Your task to perform on an android device: visit the assistant section in the google photos Image 0: 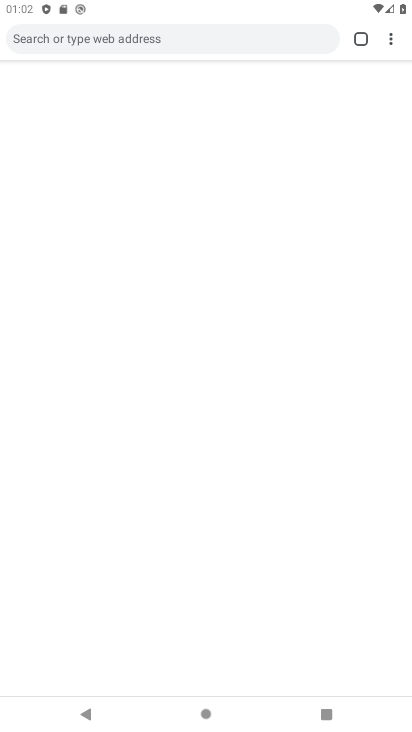
Step 0: drag from (199, 530) to (399, 373)
Your task to perform on an android device: visit the assistant section in the google photos Image 1: 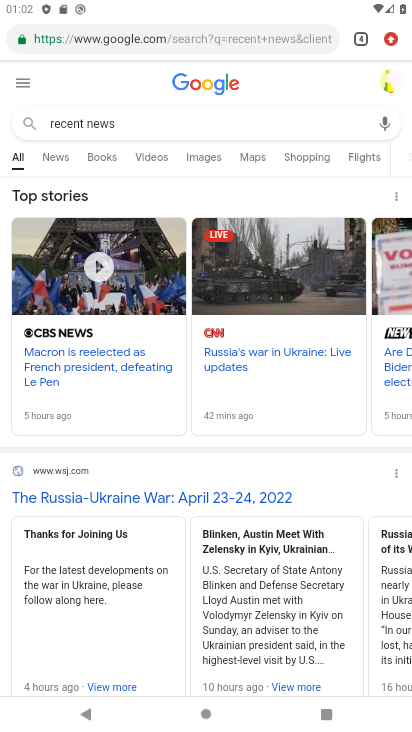
Step 1: press home button
Your task to perform on an android device: visit the assistant section in the google photos Image 2: 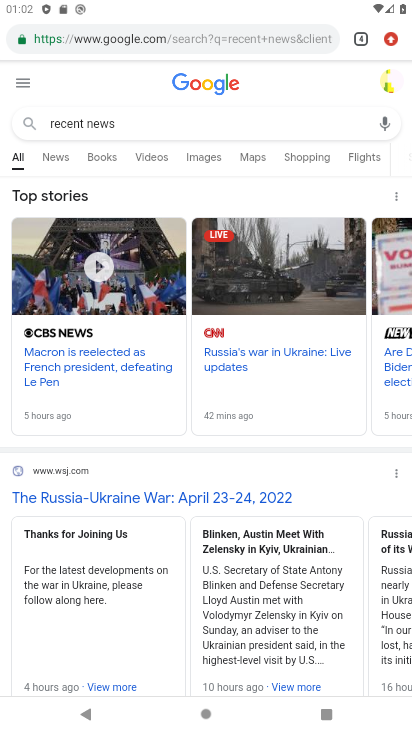
Step 2: click (399, 373)
Your task to perform on an android device: visit the assistant section in the google photos Image 3: 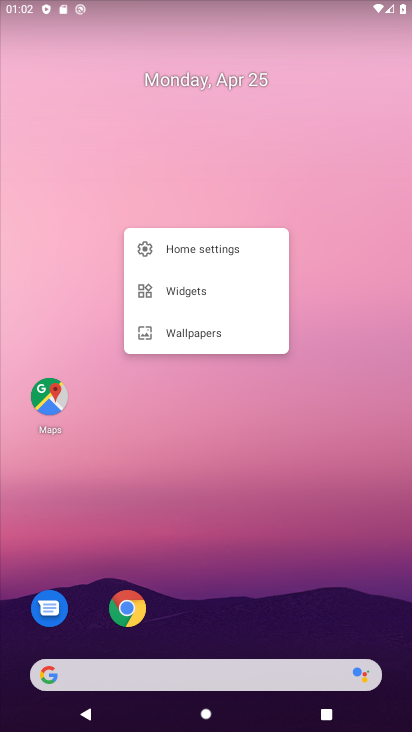
Step 3: drag from (208, 592) to (299, 135)
Your task to perform on an android device: visit the assistant section in the google photos Image 4: 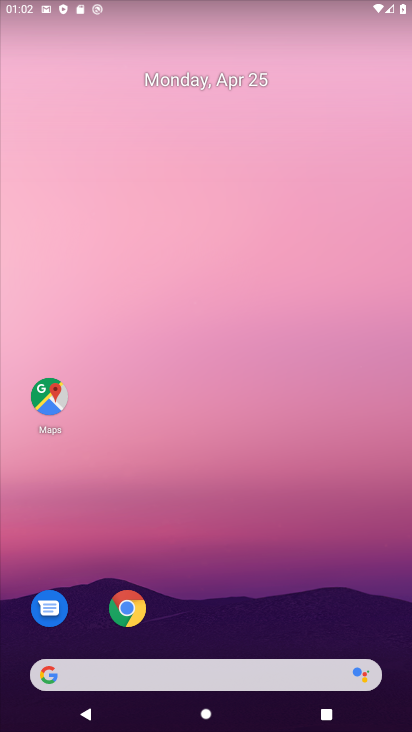
Step 4: drag from (225, 568) to (232, 191)
Your task to perform on an android device: visit the assistant section in the google photos Image 5: 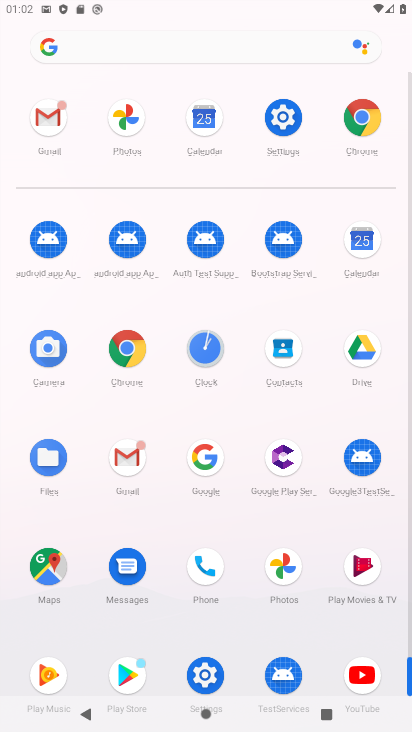
Step 5: click (295, 568)
Your task to perform on an android device: visit the assistant section in the google photos Image 6: 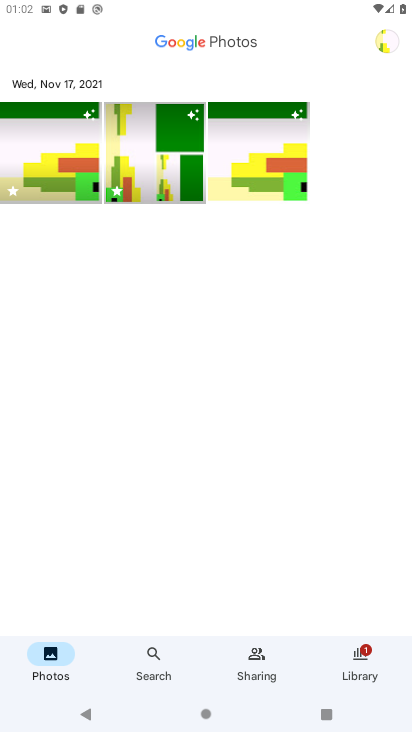
Step 6: click (263, 682)
Your task to perform on an android device: visit the assistant section in the google photos Image 7: 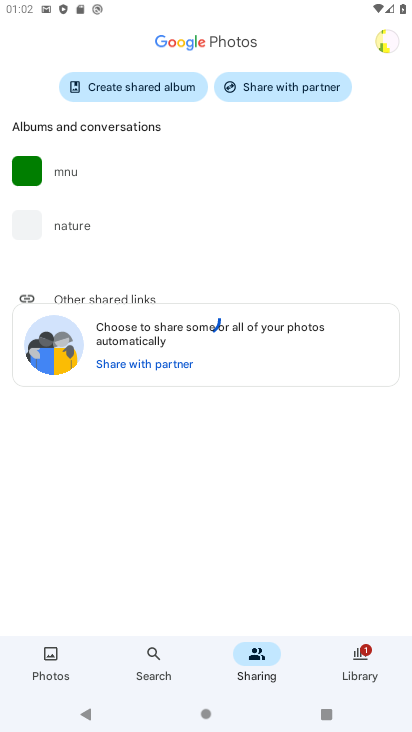
Step 7: click (331, 670)
Your task to perform on an android device: visit the assistant section in the google photos Image 8: 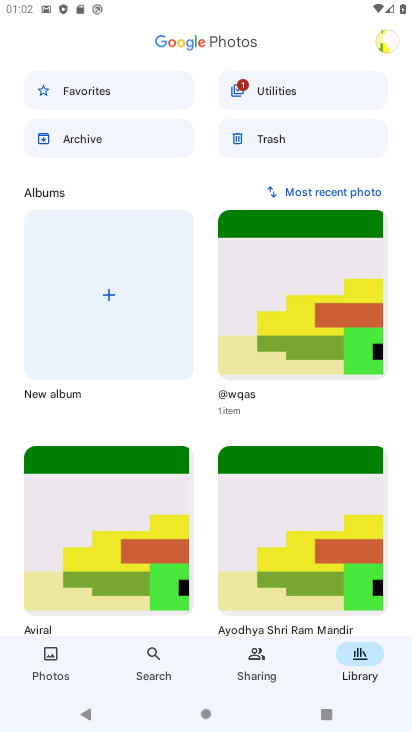
Step 8: click (140, 668)
Your task to perform on an android device: visit the assistant section in the google photos Image 9: 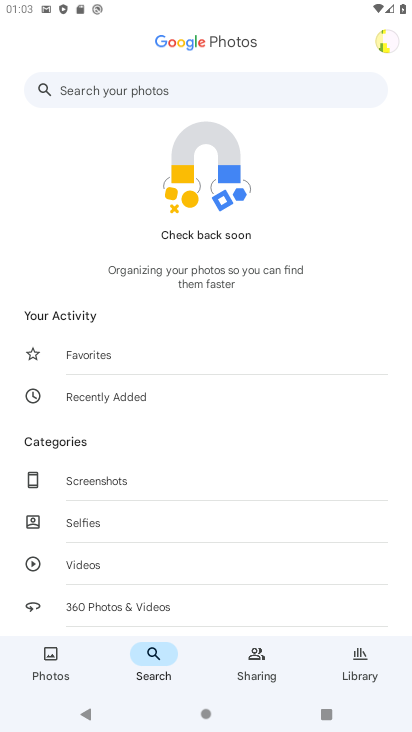
Step 9: task complete